Your task to perform on an android device: install app "Lyft - Rideshare, Bikes, Scooters & Transit" Image 0: 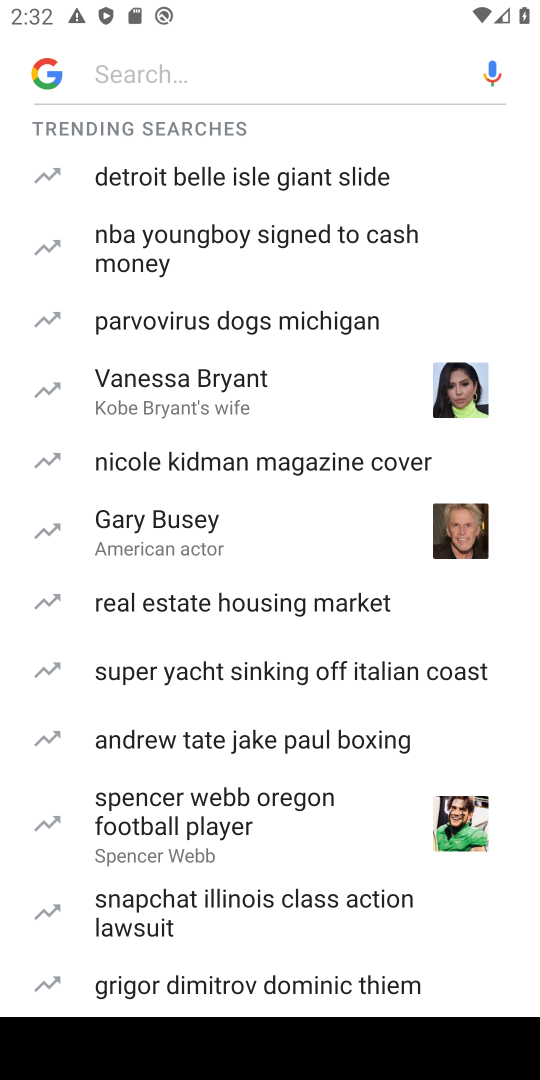
Step 0: press back button
Your task to perform on an android device: install app "Lyft - Rideshare, Bikes, Scooters & Transit" Image 1: 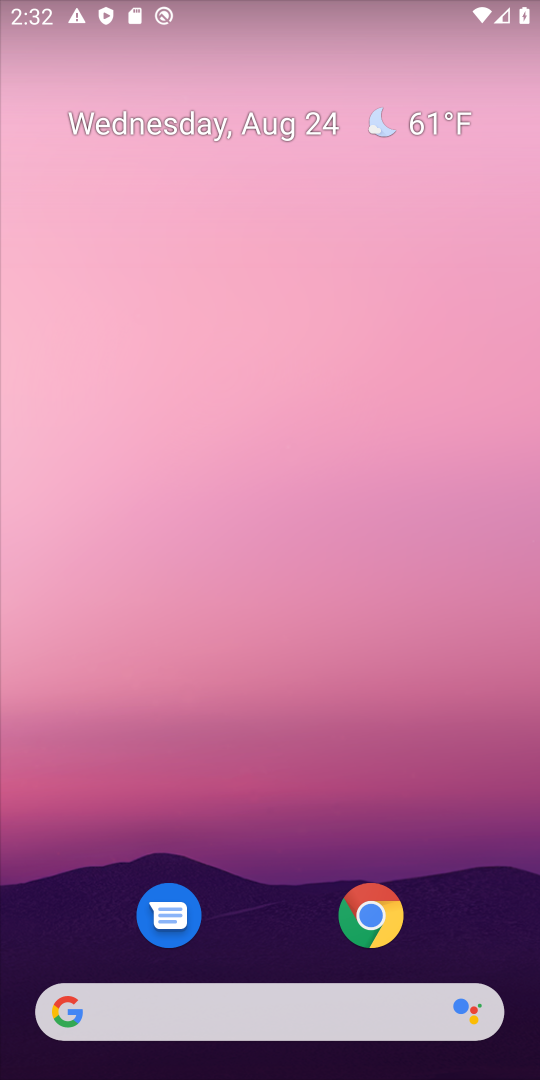
Step 1: drag from (291, 746) to (309, 106)
Your task to perform on an android device: install app "Lyft - Rideshare, Bikes, Scooters & Transit" Image 2: 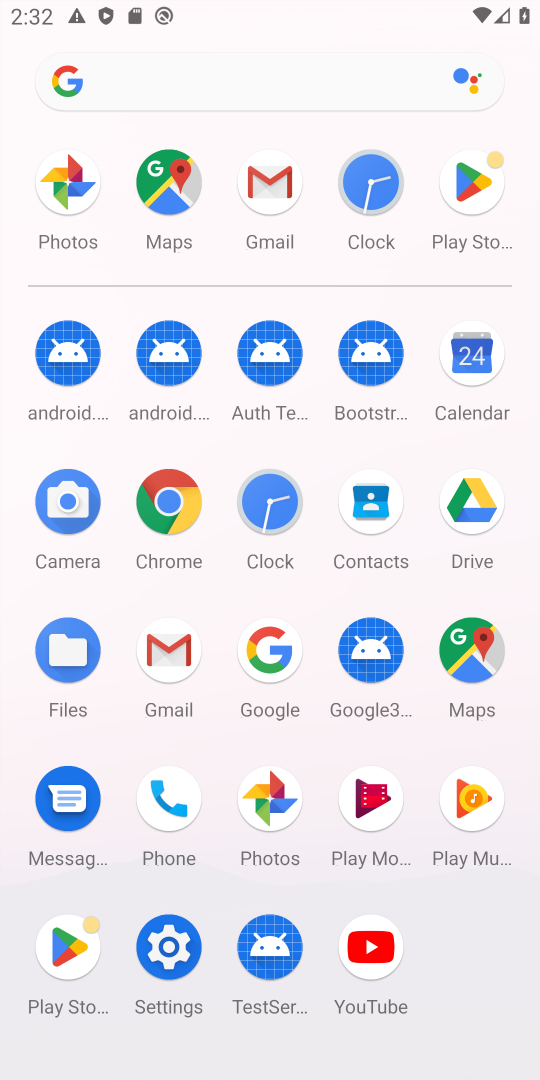
Step 2: click (487, 185)
Your task to perform on an android device: install app "Lyft - Rideshare, Bikes, Scooters & Transit" Image 3: 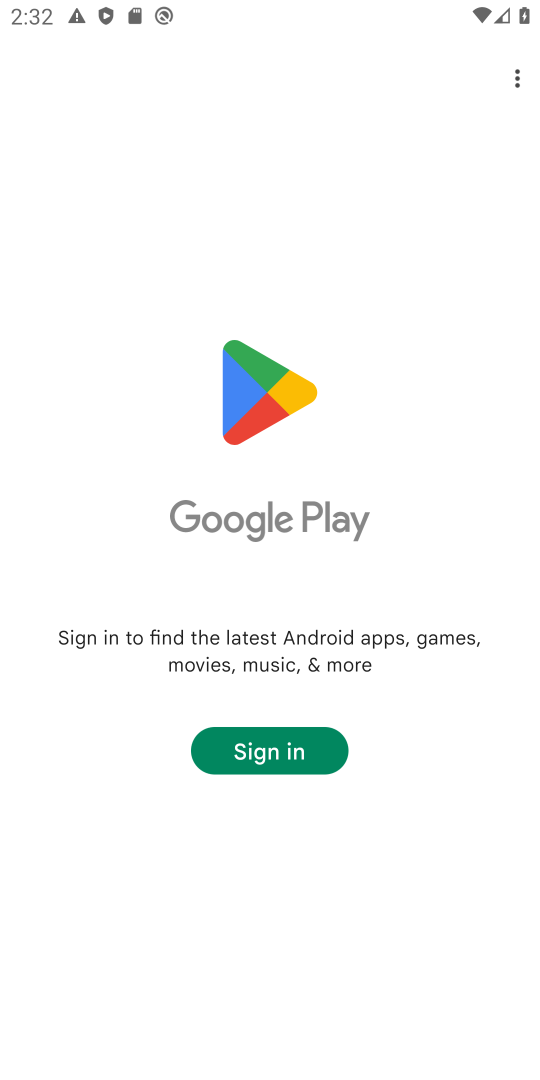
Step 3: task complete